Your task to perform on an android device: Open CNN.com Image 0: 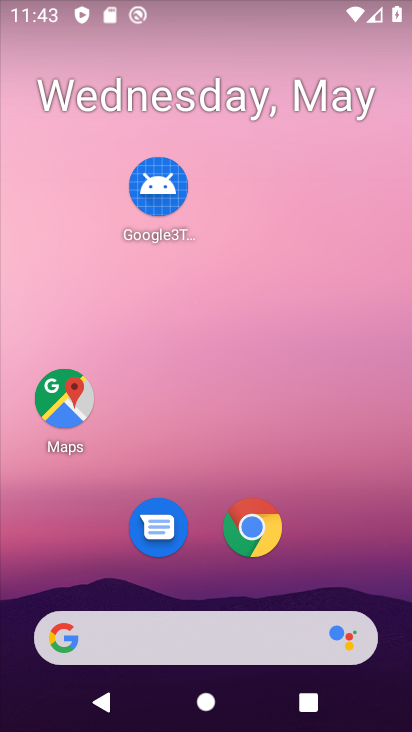
Step 0: press home button
Your task to perform on an android device: Open CNN.com Image 1: 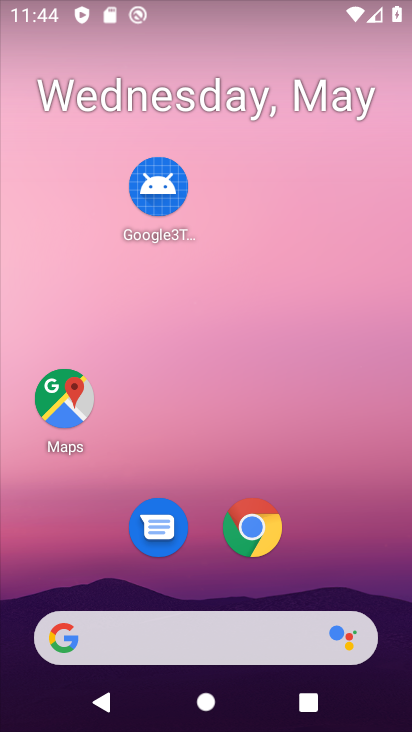
Step 1: click (248, 520)
Your task to perform on an android device: Open CNN.com Image 2: 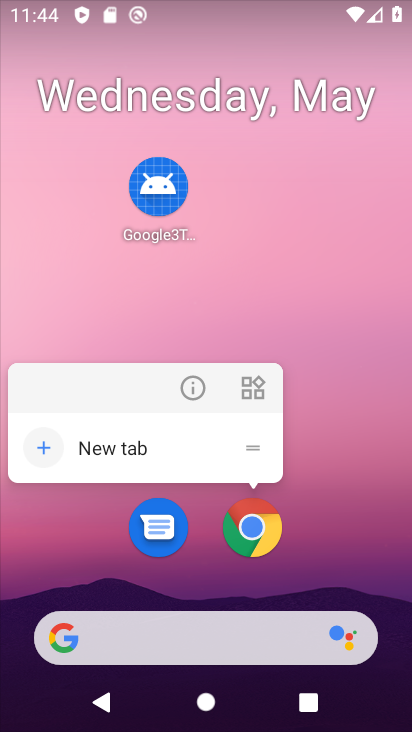
Step 2: click (245, 520)
Your task to perform on an android device: Open CNN.com Image 3: 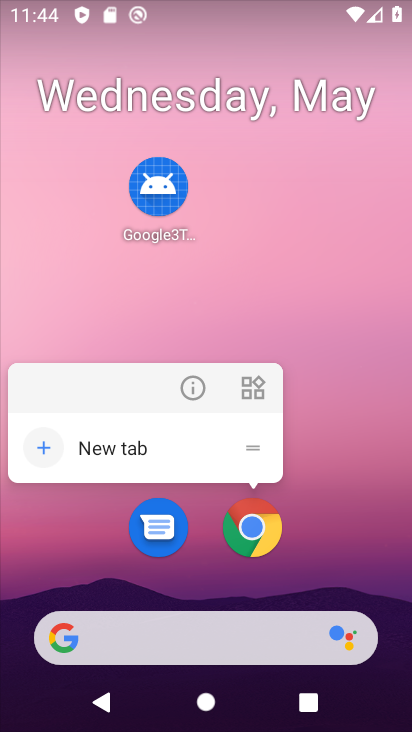
Step 3: click (247, 520)
Your task to perform on an android device: Open CNN.com Image 4: 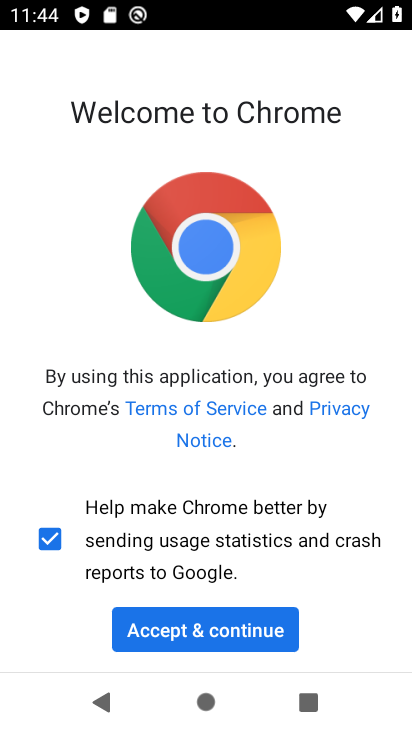
Step 4: click (195, 622)
Your task to perform on an android device: Open CNN.com Image 5: 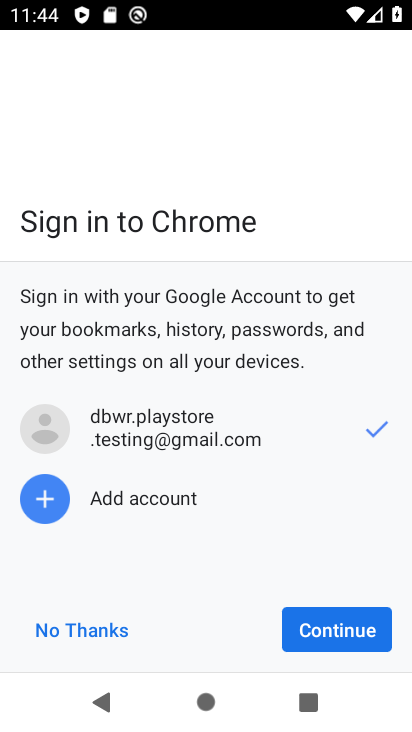
Step 5: click (337, 627)
Your task to perform on an android device: Open CNN.com Image 6: 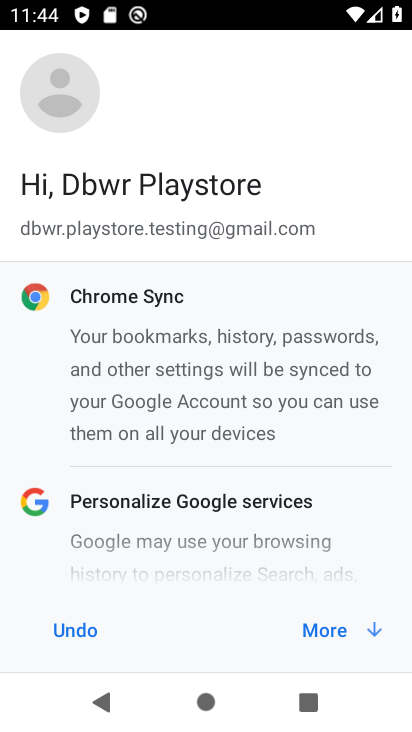
Step 6: click (335, 626)
Your task to perform on an android device: Open CNN.com Image 7: 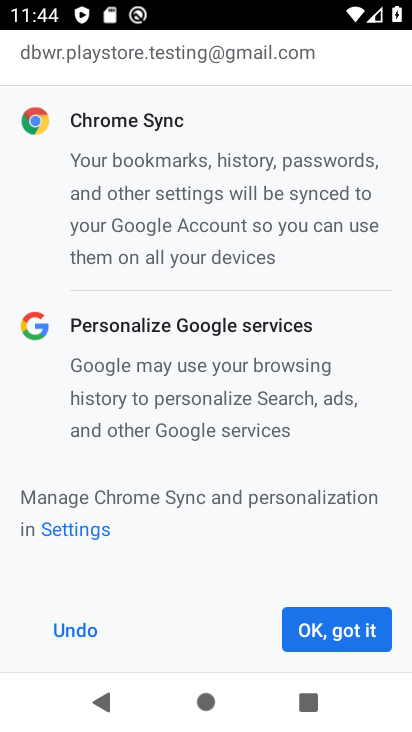
Step 7: click (341, 630)
Your task to perform on an android device: Open CNN.com Image 8: 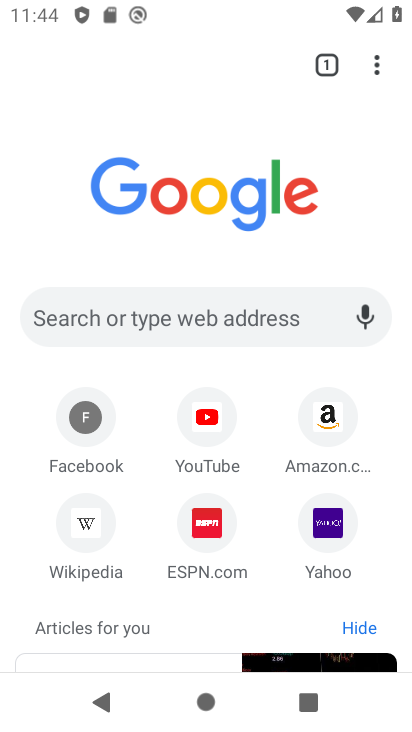
Step 8: click (150, 314)
Your task to perform on an android device: Open CNN.com Image 9: 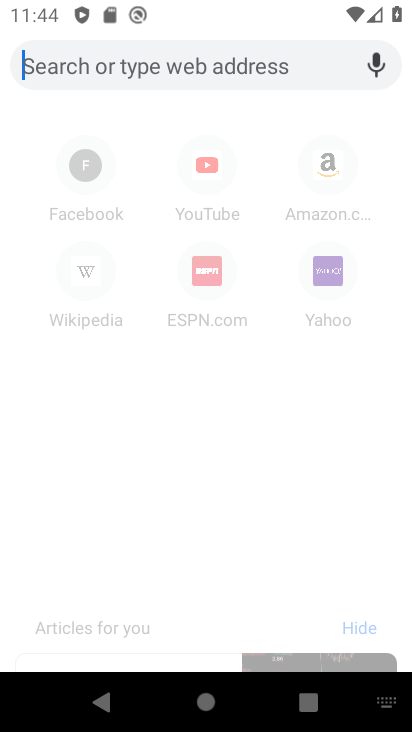
Step 9: type "cnn.com"
Your task to perform on an android device: Open CNN.com Image 10: 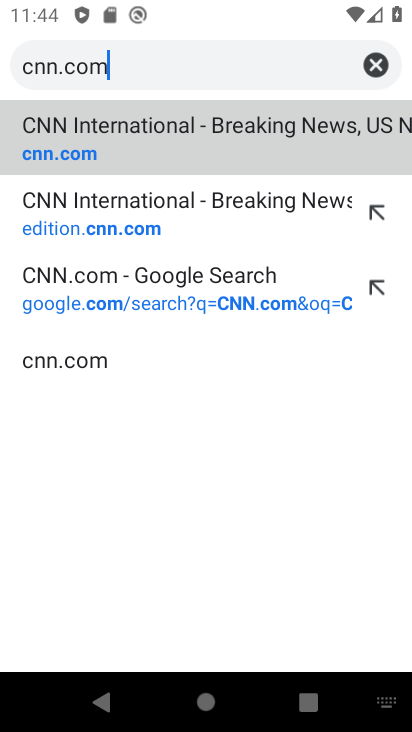
Step 10: click (114, 140)
Your task to perform on an android device: Open CNN.com Image 11: 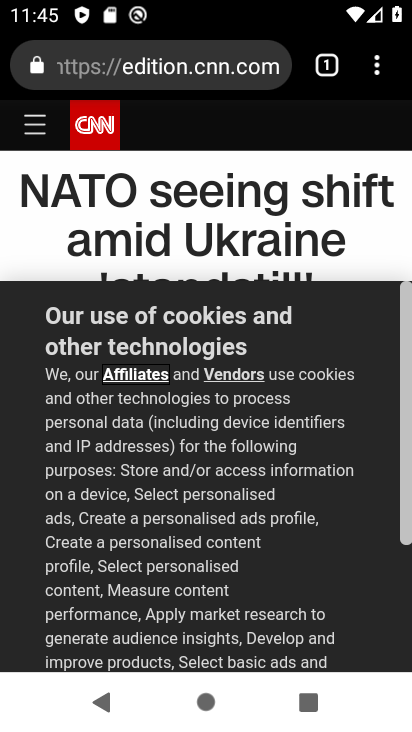
Step 11: drag from (189, 545) to (223, 209)
Your task to perform on an android device: Open CNN.com Image 12: 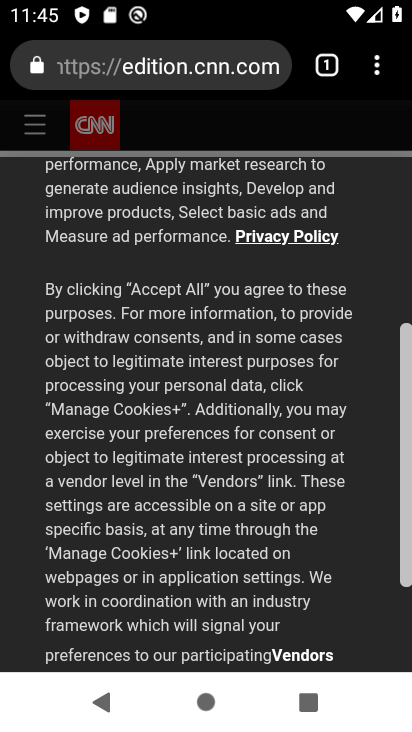
Step 12: drag from (225, 350) to (238, 226)
Your task to perform on an android device: Open CNN.com Image 13: 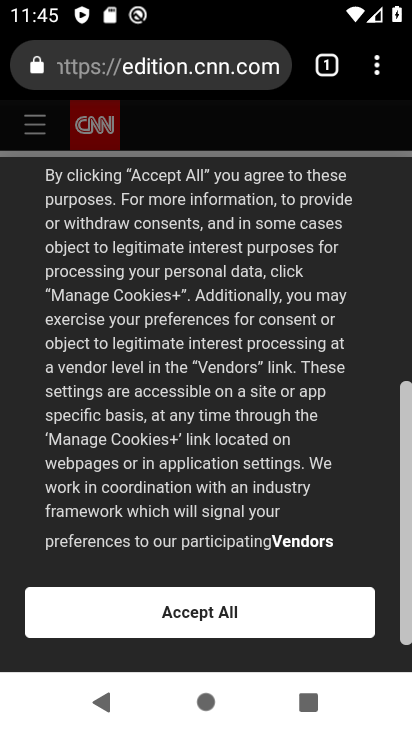
Step 13: click (203, 612)
Your task to perform on an android device: Open CNN.com Image 14: 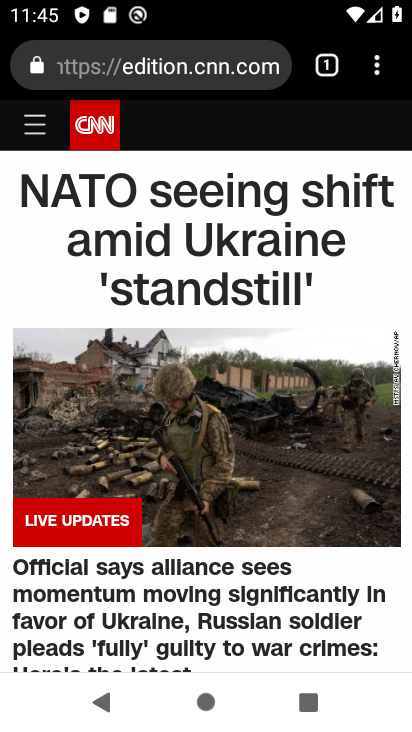
Step 14: task complete